Your task to perform on an android device: turn on notifications settings in the gmail app Image 0: 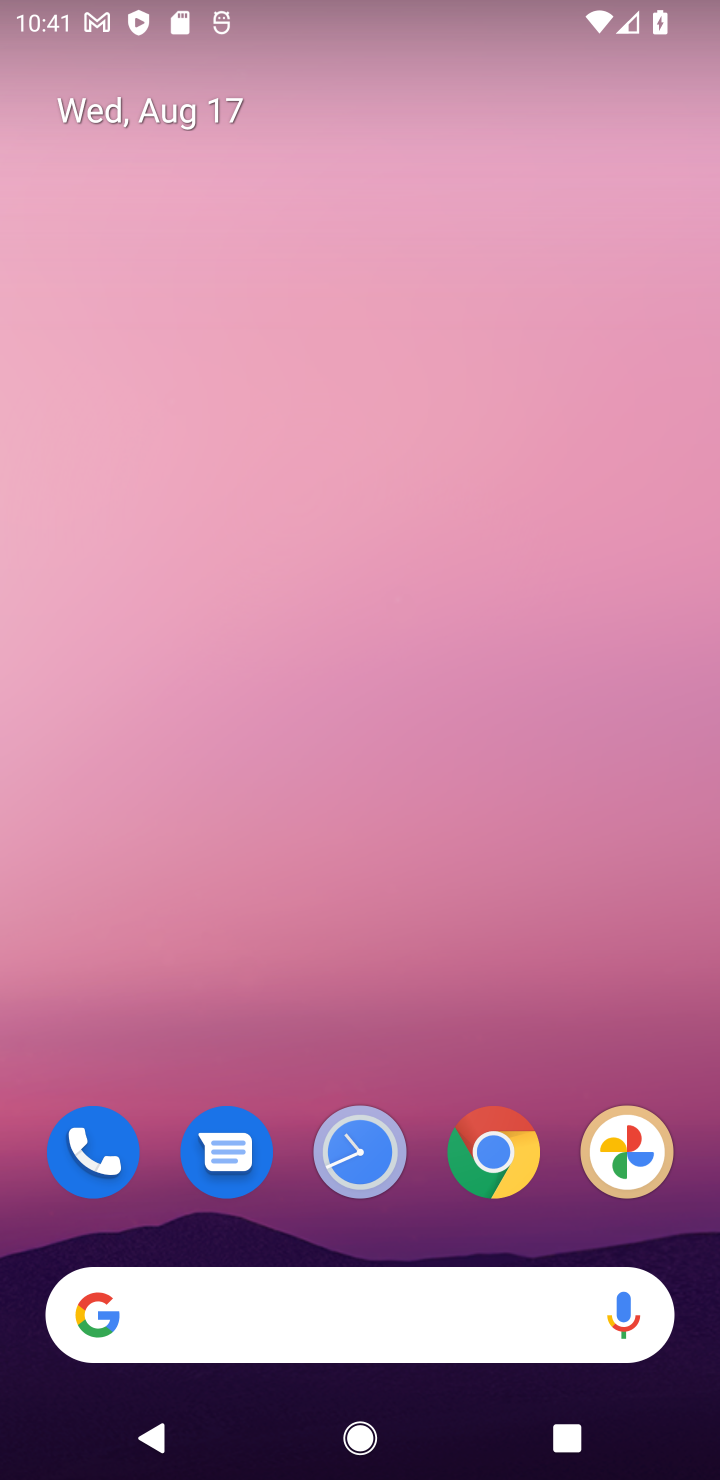
Step 0: drag from (559, 1203) to (343, 23)
Your task to perform on an android device: turn on notifications settings in the gmail app Image 1: 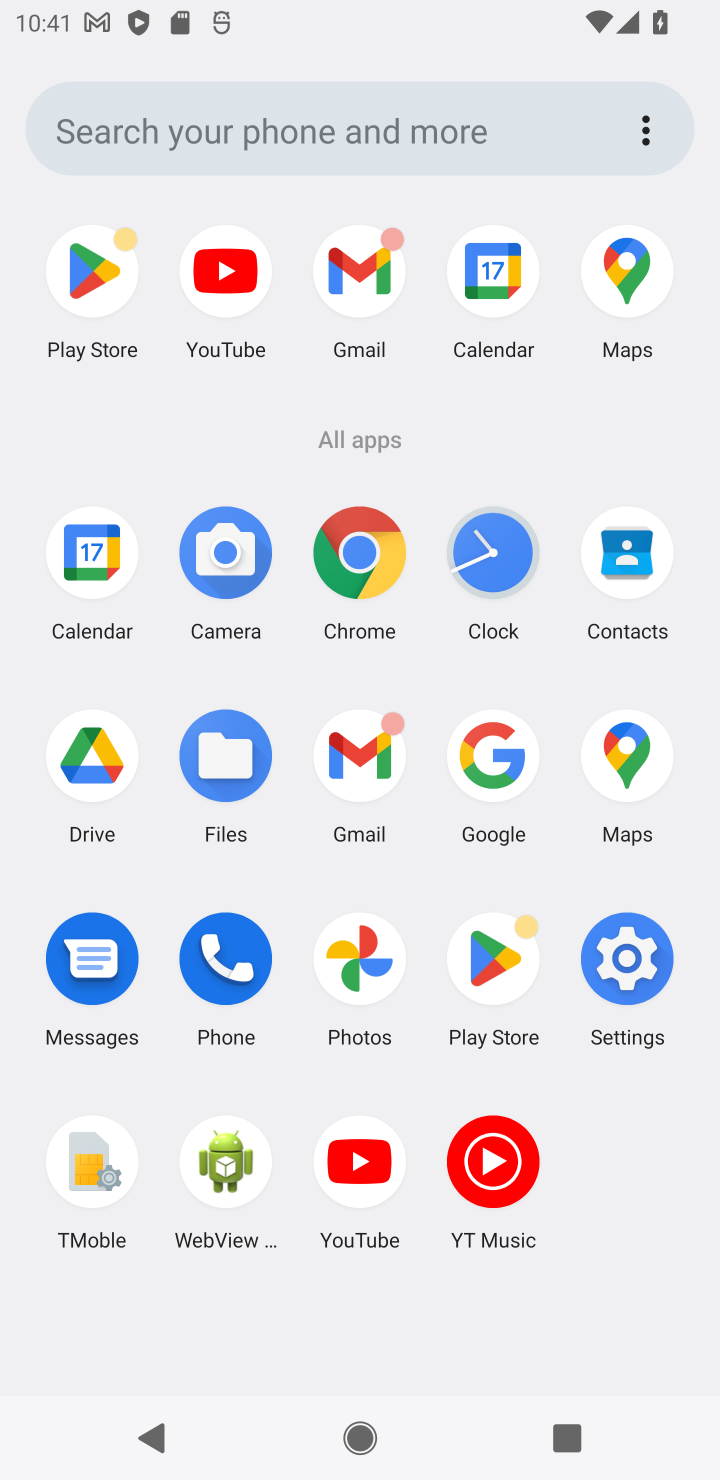
Step 1: click (378, 748)
Your task to perform on an android device: turn on notifications settings in the gmail app Image 2: 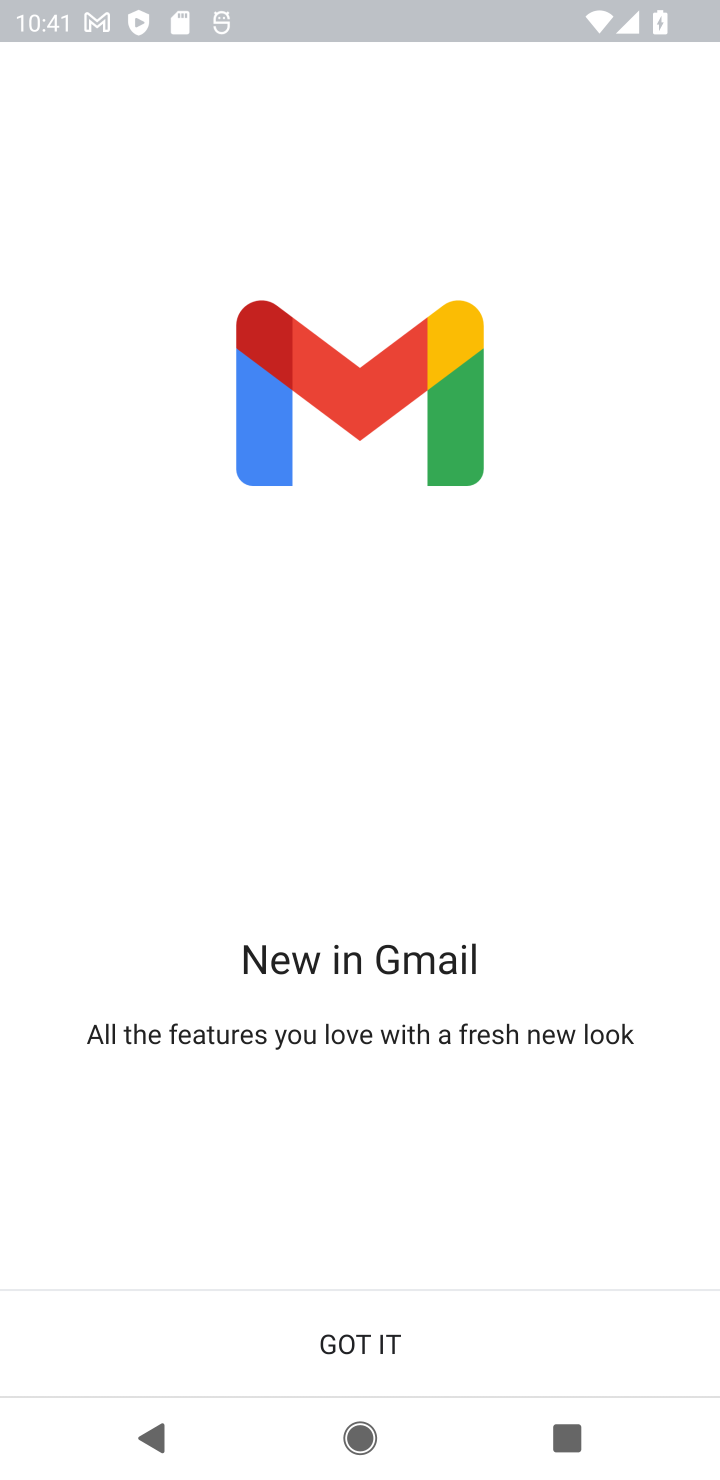
Step 2: click (314, 1328)
Your task to perform on an android device: turn on notifications settings in the gmail app Image 3: 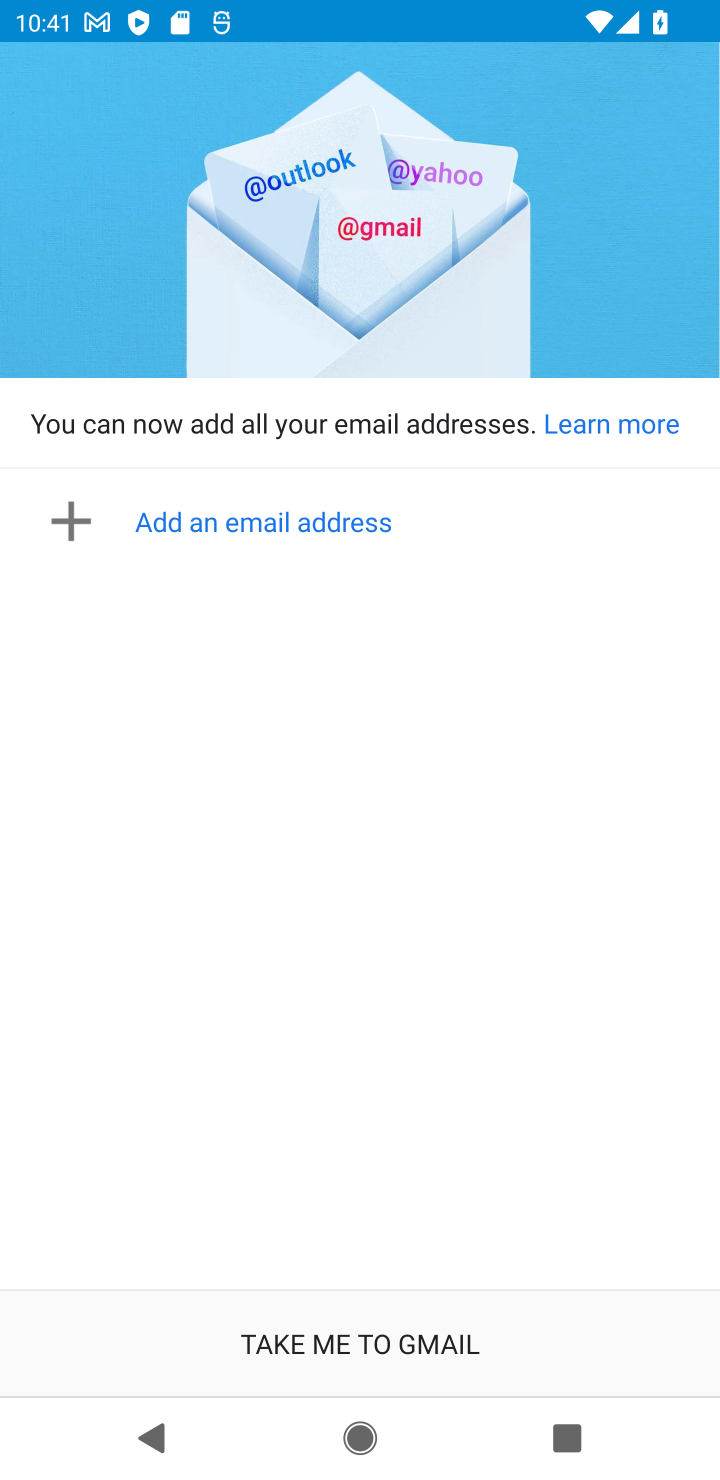
Step 3: click (314, 1328)
Your task to perform on an android device: turn on notifications settings in the gmail app Image 4: 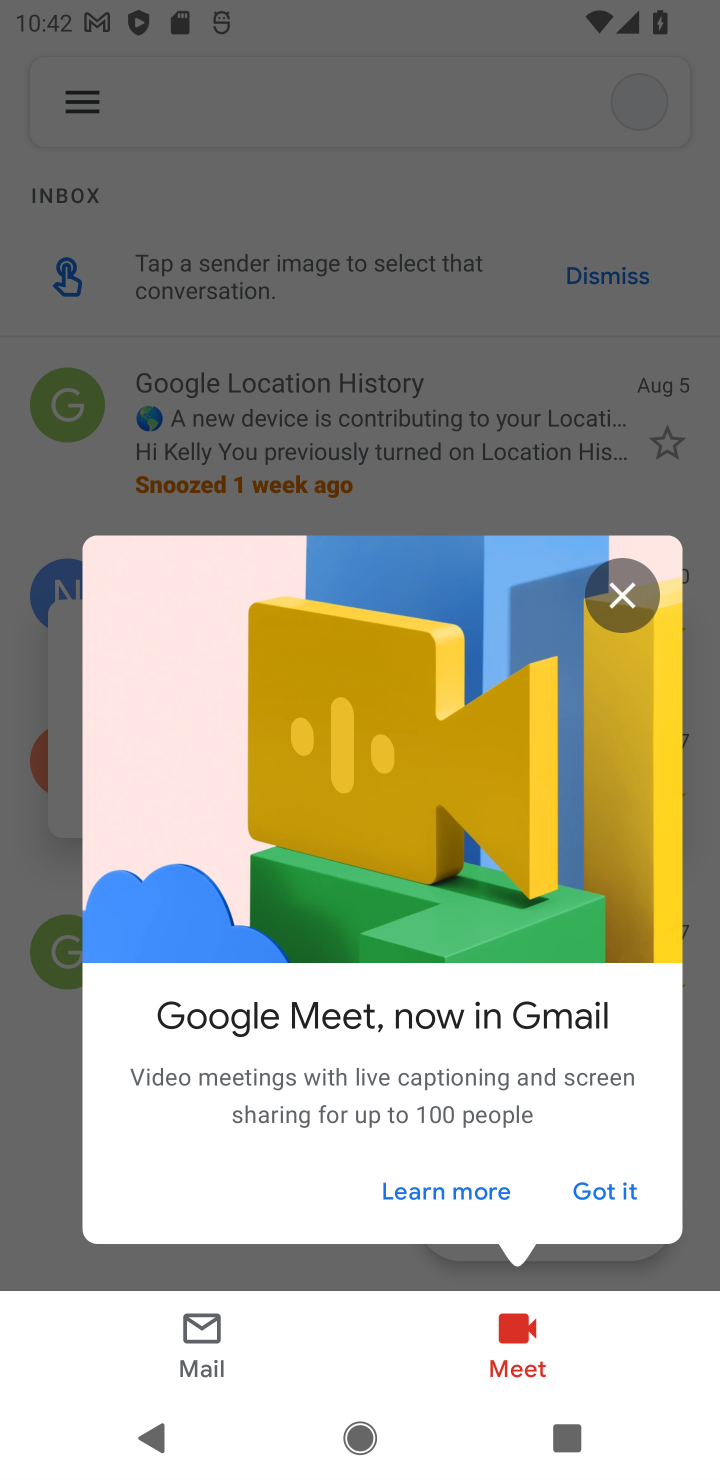
Step 4: click (610, 781)
Your task to perform on an android device: turn on notifications settings in the gmail app Image 5: 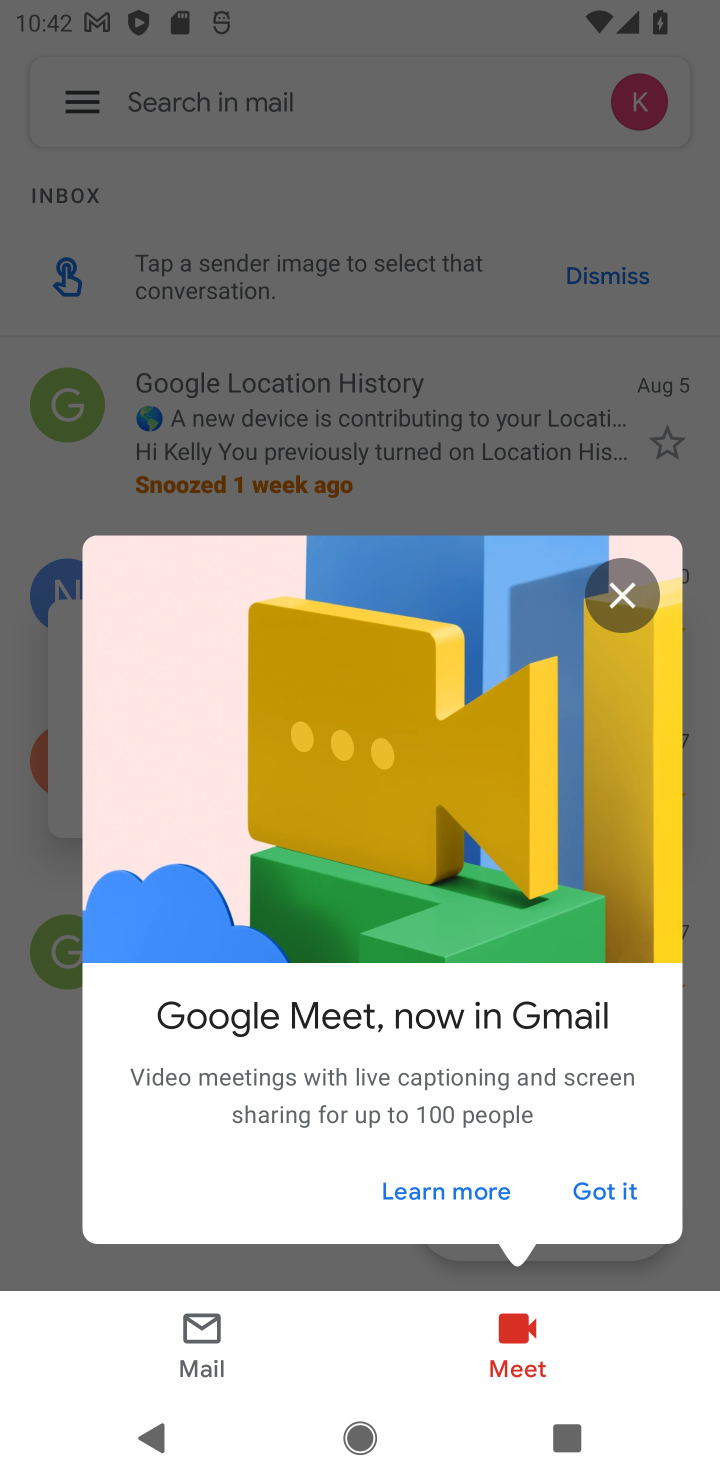
Step 5: click (610, 1184)
Your task to perform on an android device: turn on notifications settings in the gmail app Image 6: 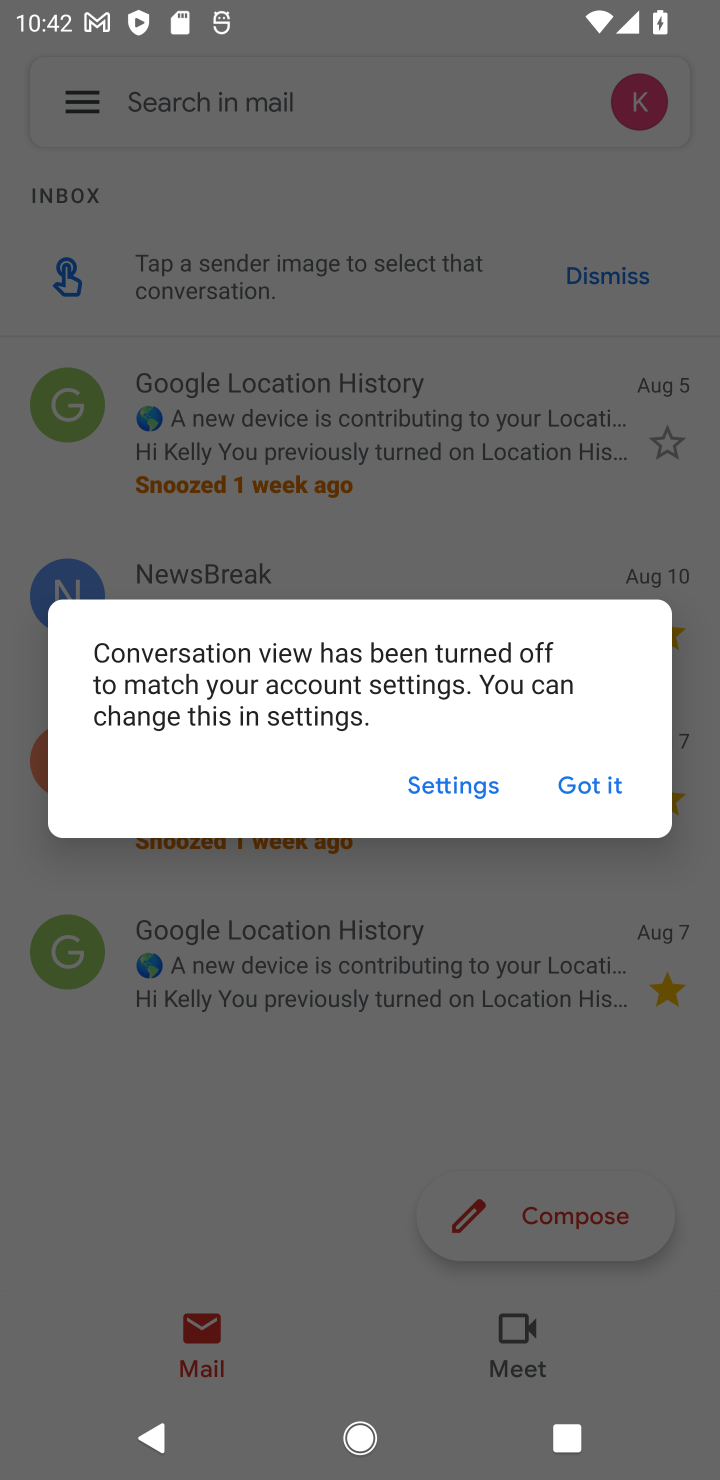
Step 6: click (581, 785)
Your task to perform on an android device: turn on notifications settings in the gmail app Image 7: 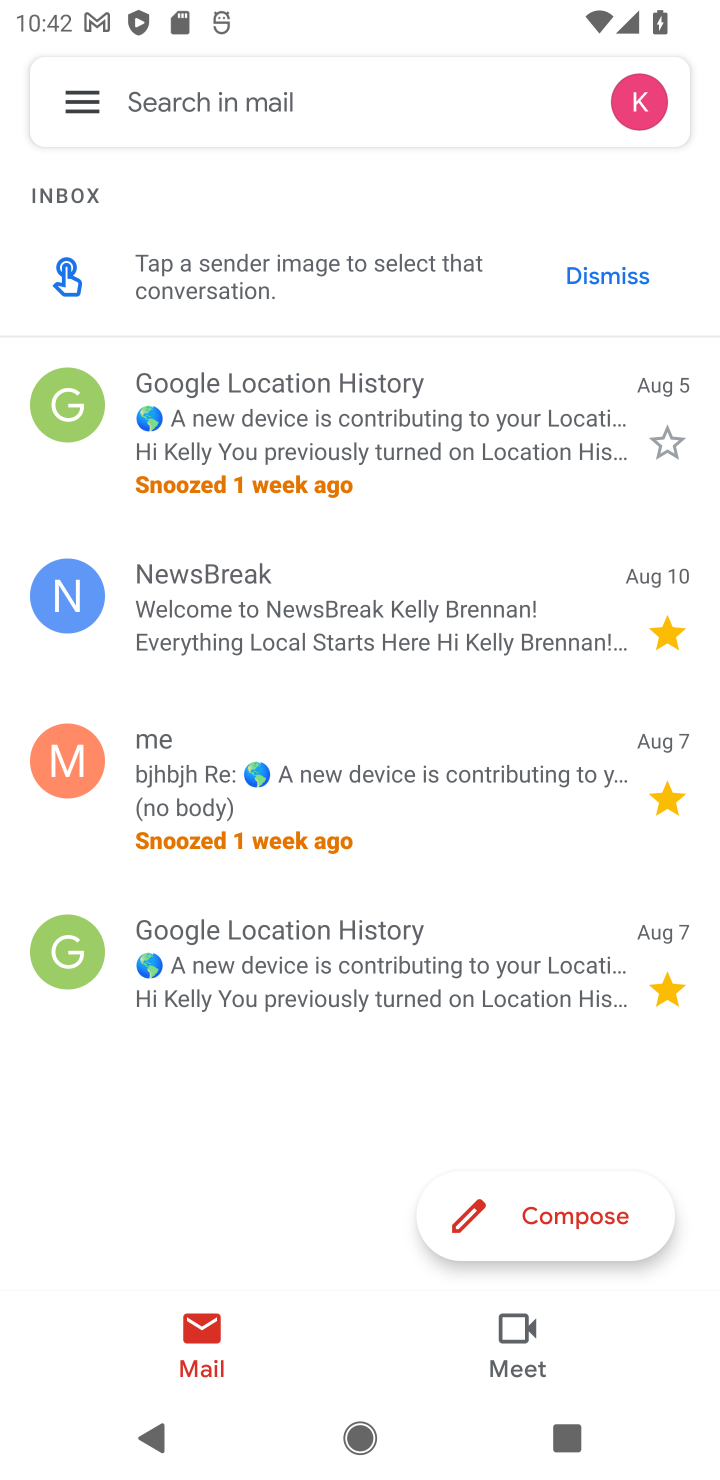
Step 7: click (104, 109)
Your task to perform on an android device: turn on notifications settings in the gmail app Image 8: 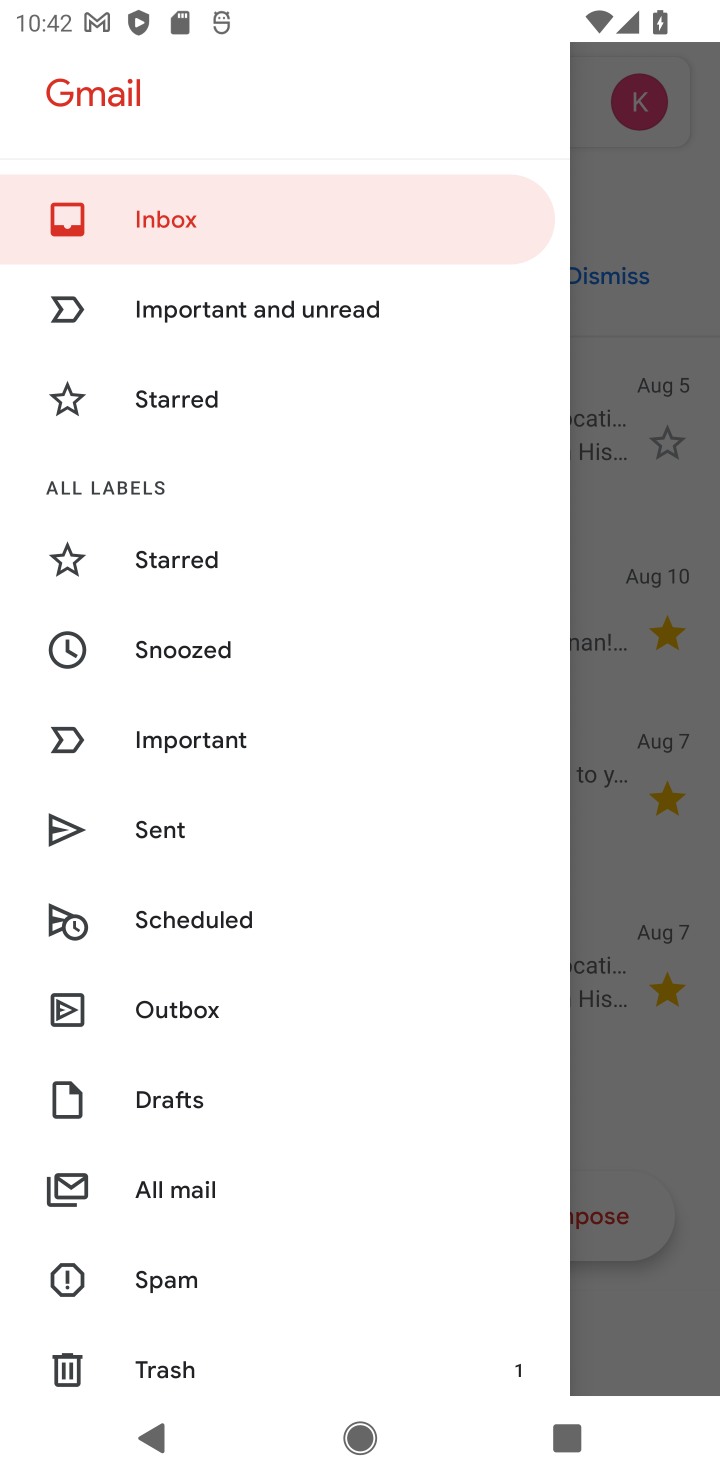
Step 8: drag from (161, 1396) to (366, 57)
Your task to perform on an android device: turn on notifications settings in the gmail app Image 9: 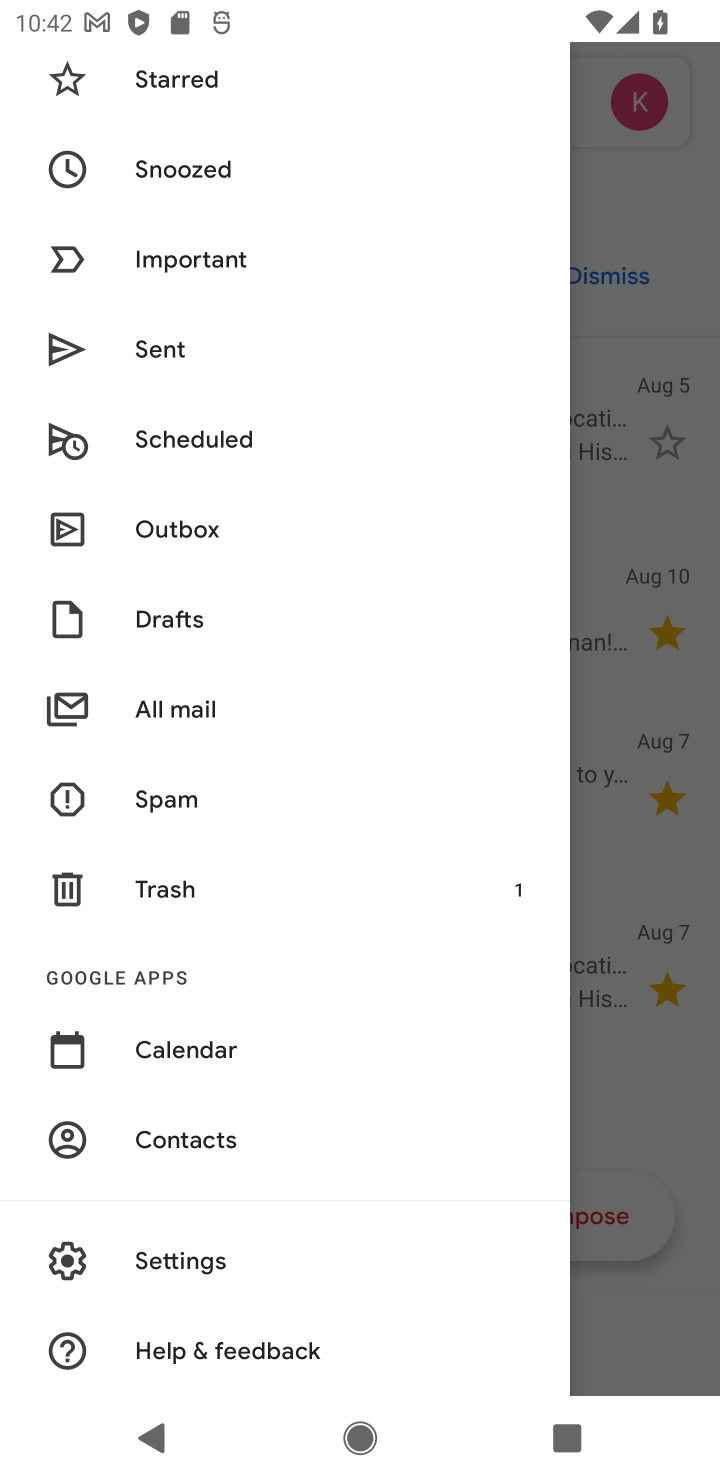
Step 9: click (199, 1282)
Your task to perform on an android device: turn on notifications settings in the gmail app Image 10: 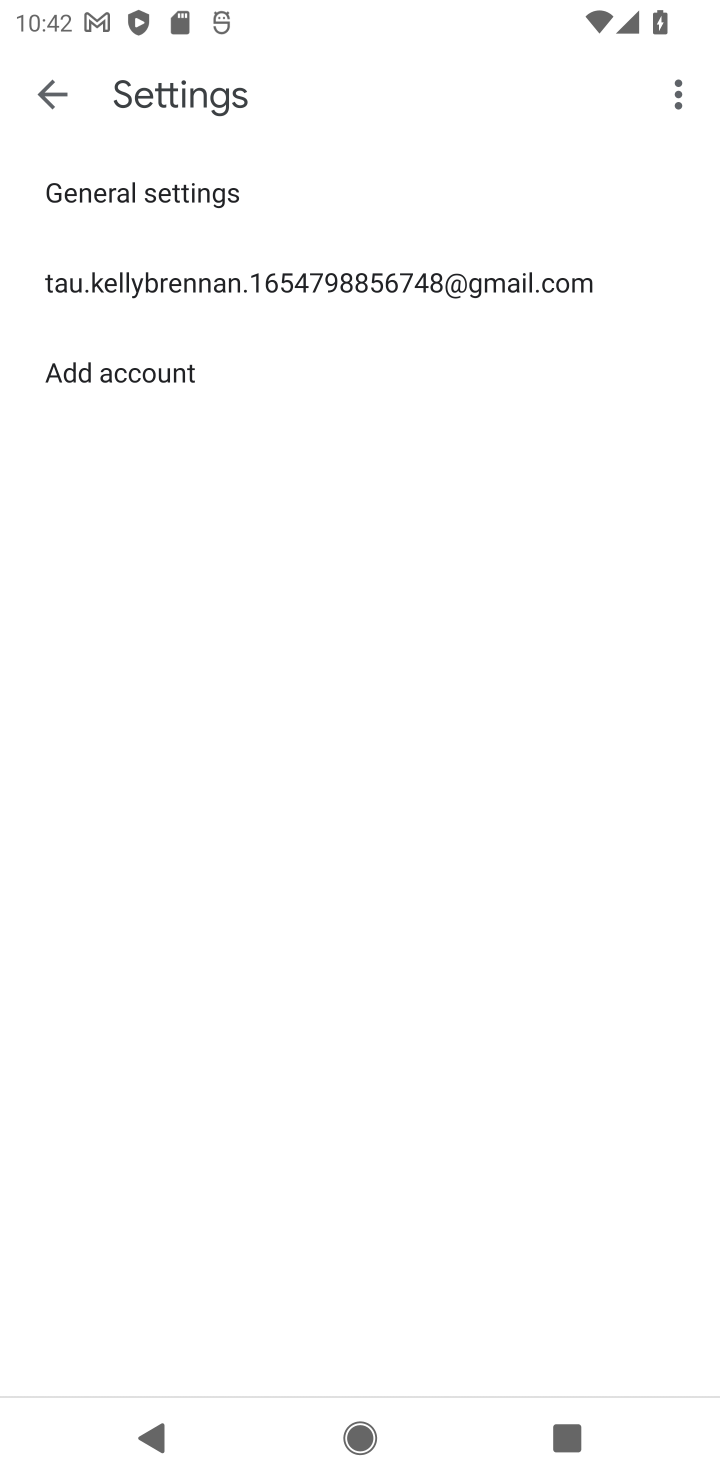
Step 10: click (383, 291)
Your task to perform on an android device: turn on notifications settings in the gmail app Image 11: 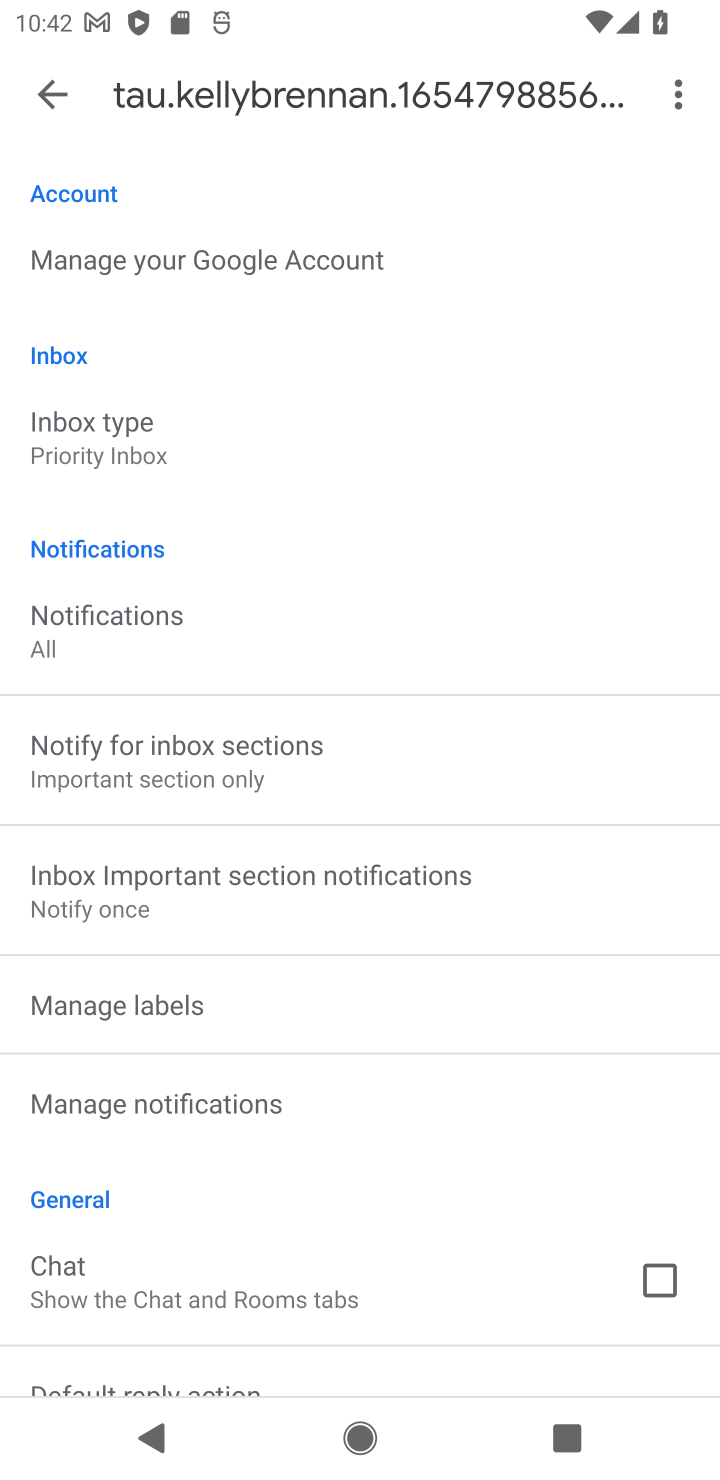
Step 11: click (70, 669)
Your task to perform on an android device: turn on notifications settings in the gmail app Image 12: 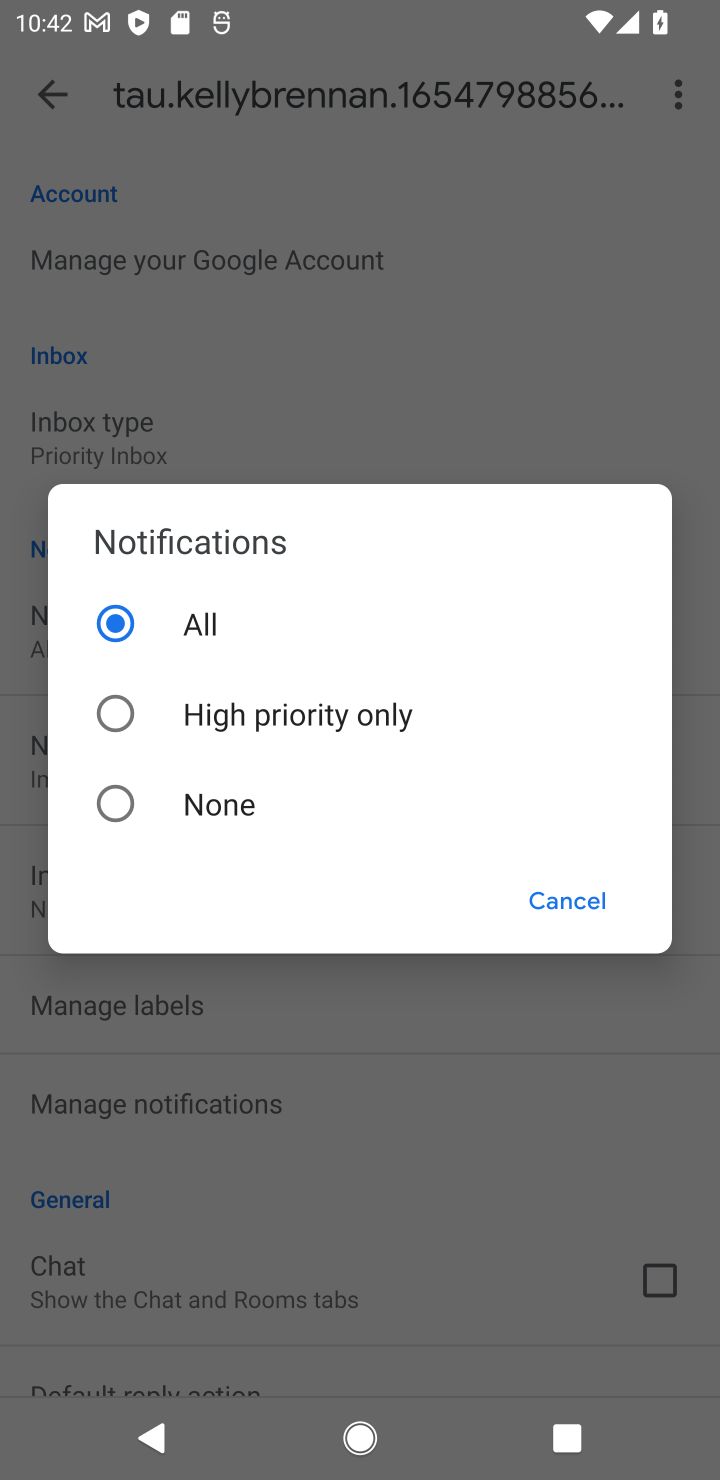
Step 12: task complete